Your task to perform on an android device: turn off improve location accuracy Image 0: 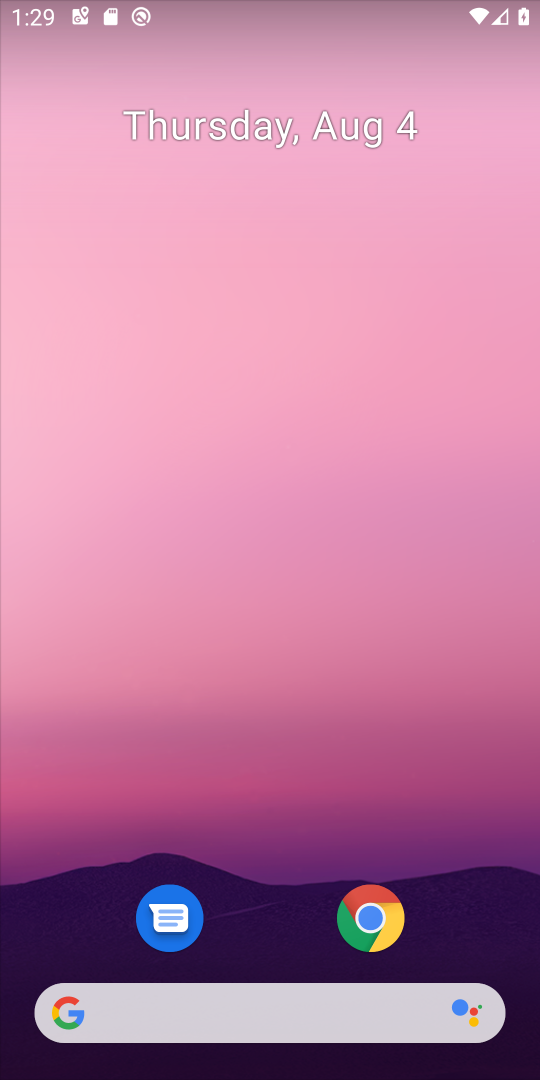
Step 0: drag from (257, 893) to (236, 222)
Your task to perform on an android device: turn off improve location accuracy Image 1: 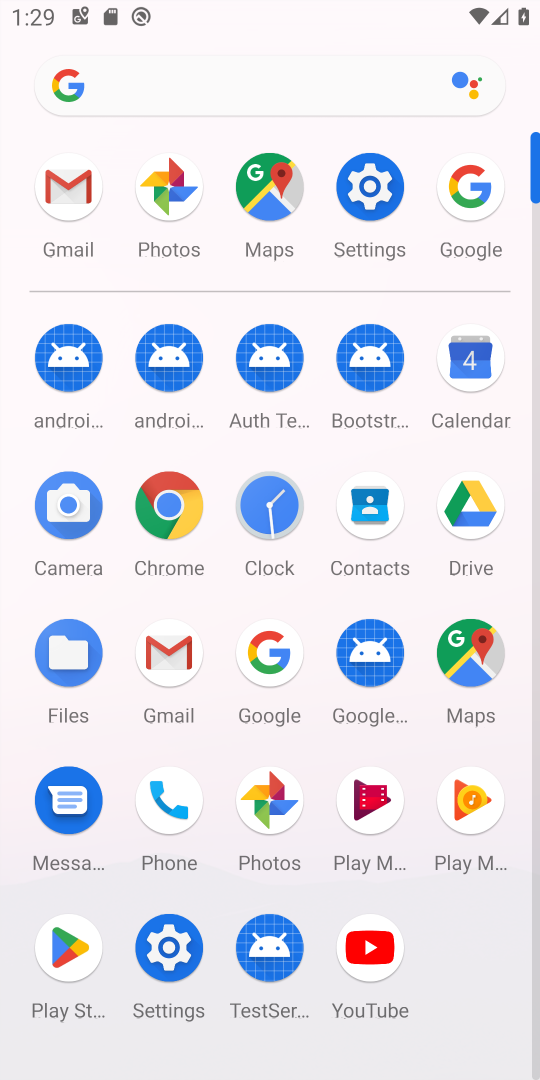
Step 1: click (368, 170)
Your task to perform on an android device: turn off improve location accuracy Image 2: 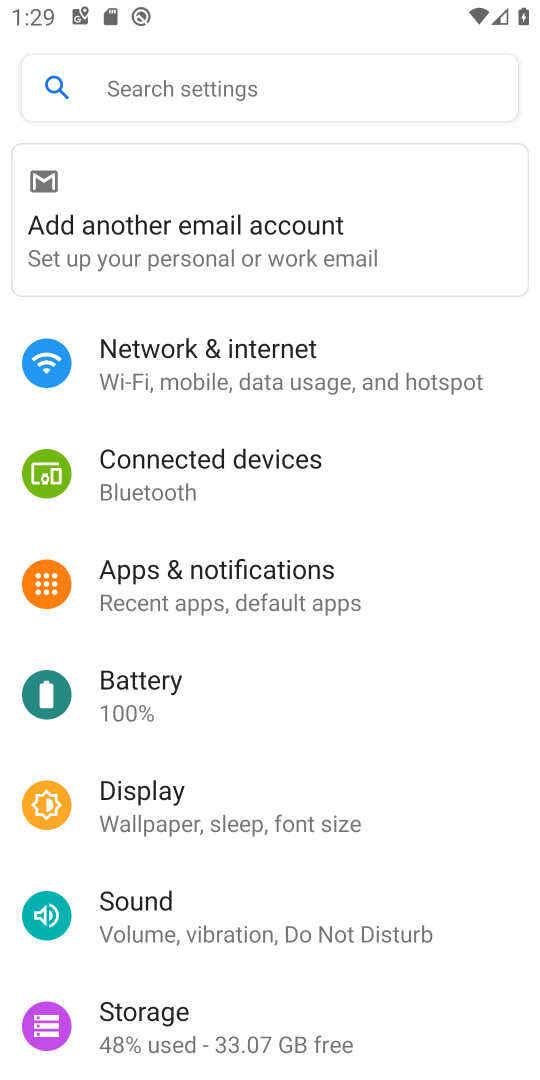
Step 2: drag from (269, 959) to (309, 365)
Your task to perform on an android device: turn off improve location accuracy Image 3: 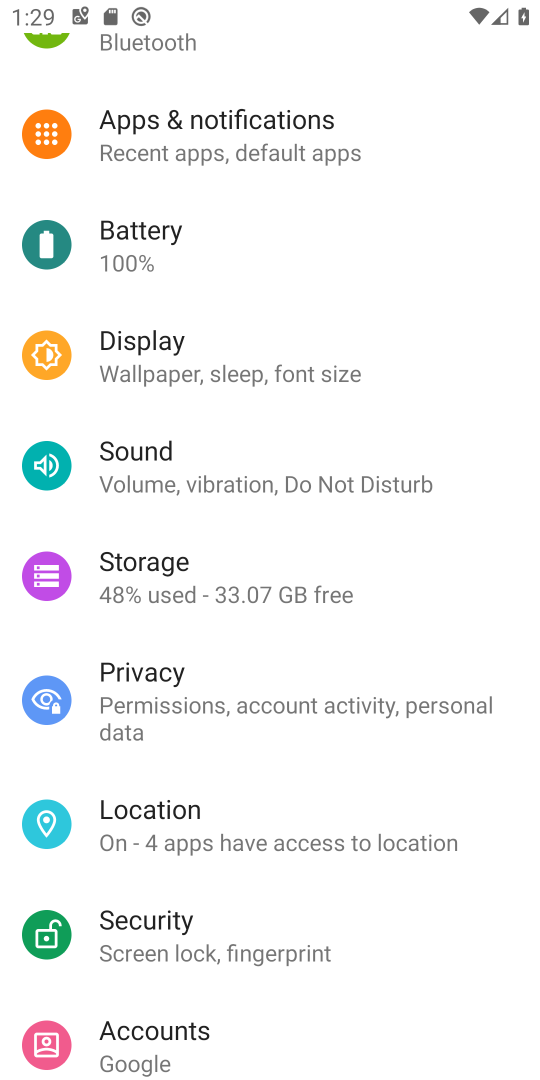
Step 3: click (199, 804)
Your task to perform on an android device: turn off improve location accuracy Image 4: 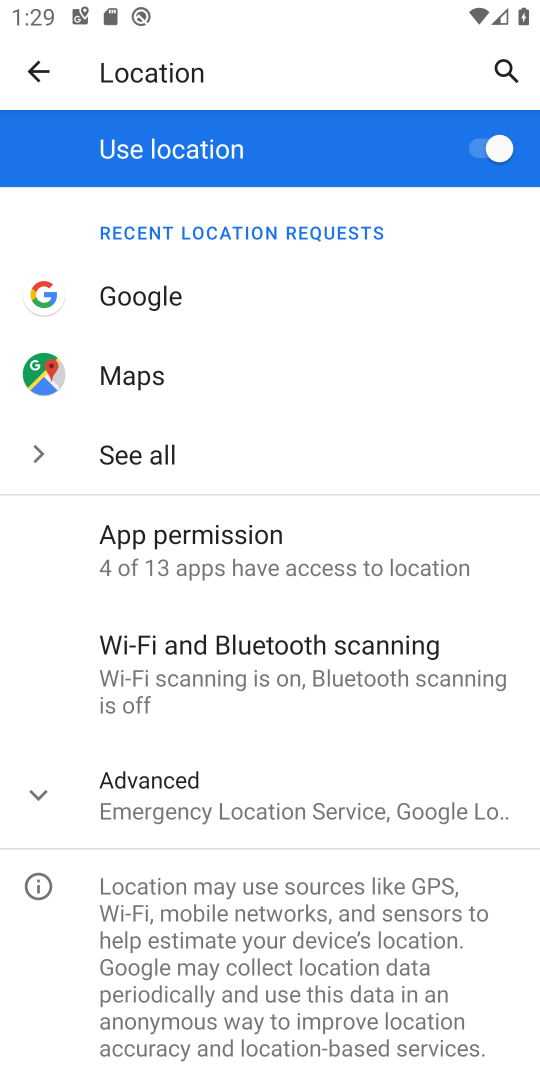
Step 4: click (198, 797)
Your task to perform on an android device: turn off improve location accuracy Image 5: 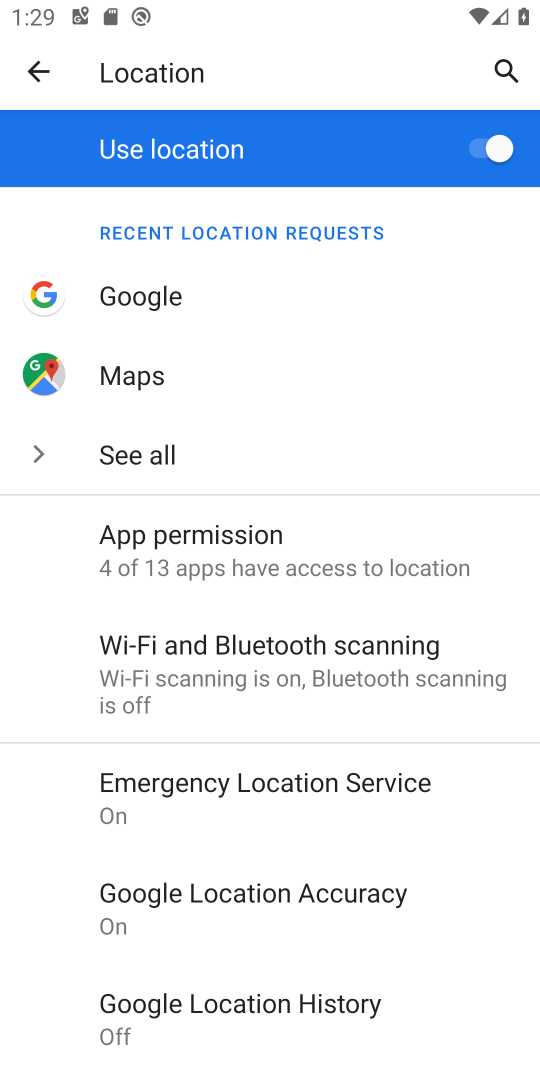
Step 5: click (315, 919)
Your task to perform on an android device: turn off improve location accuracy Image 6: 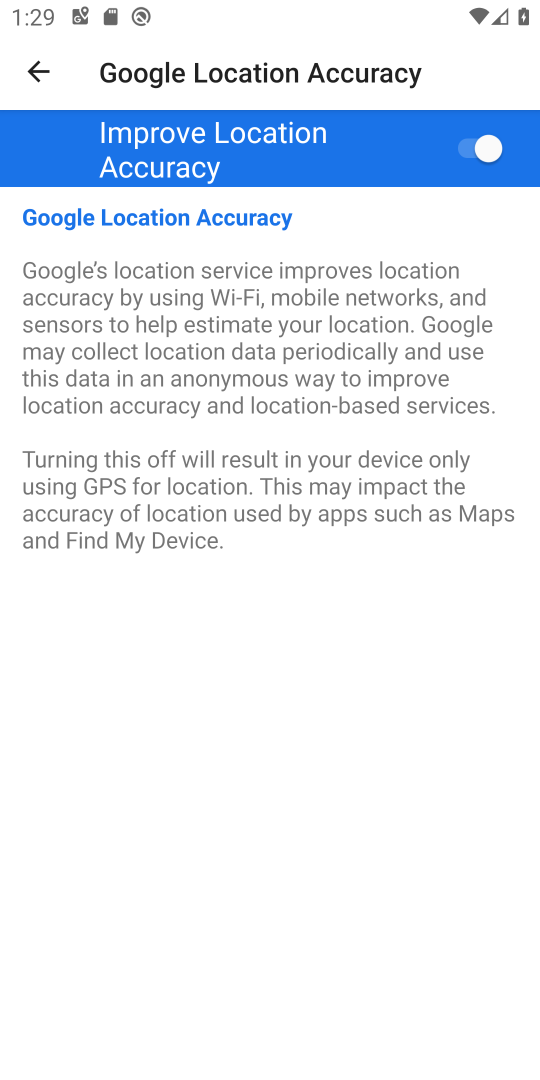
Step 6: click (468, 138)
Your task to perform on an android device: turn off improve location accuracy Image 7: 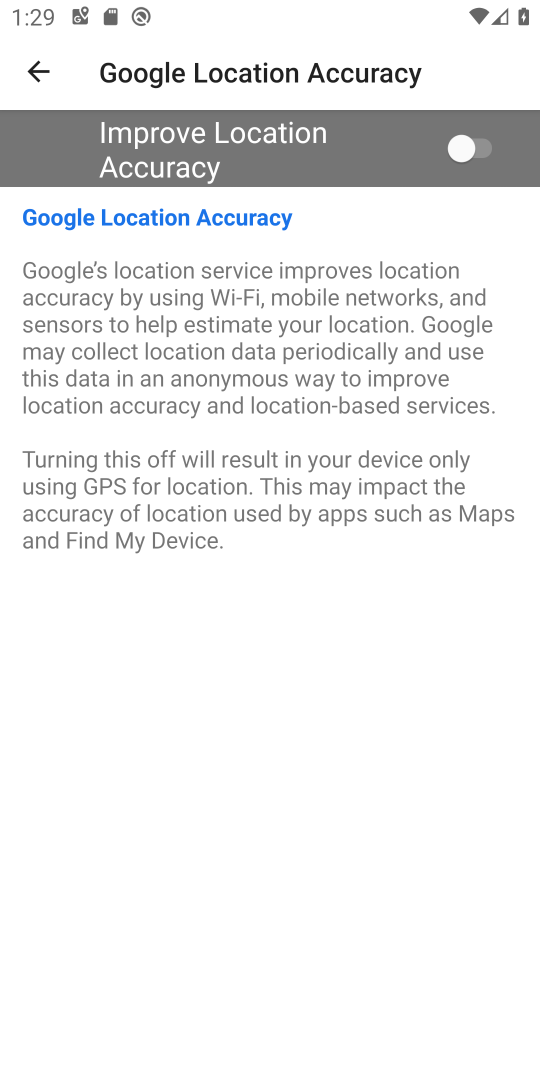
Step 7: task complete